Your task to perform on an android device: change the clock display to analog Image 0: 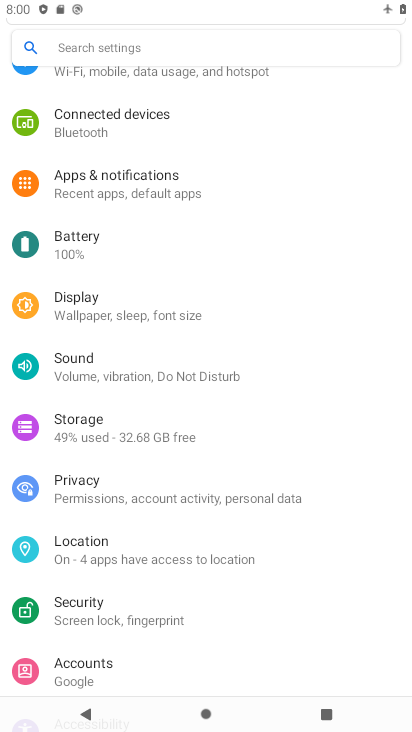
Step 0: press home button
Your task to perform on an android device: change the clock display to analog Image 1: 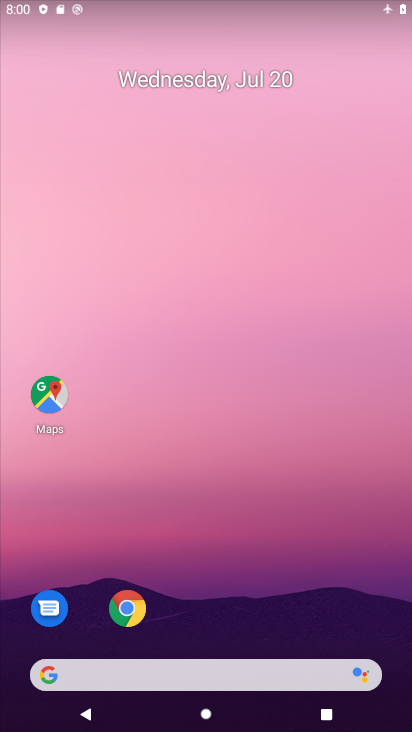
Step 1: drag from (264, 581) to (247, 11)
Your task to perform on an android device: change the clock display to analog Image 2: 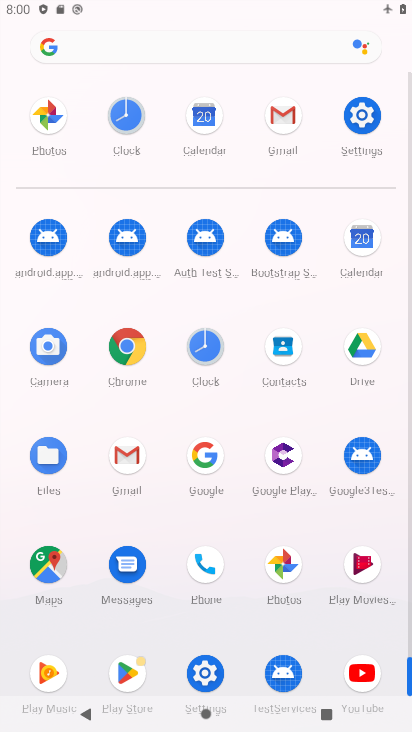
Step 2: click (203, 355)
Your task to perform on an android device: change the clock display to analog Image 3: 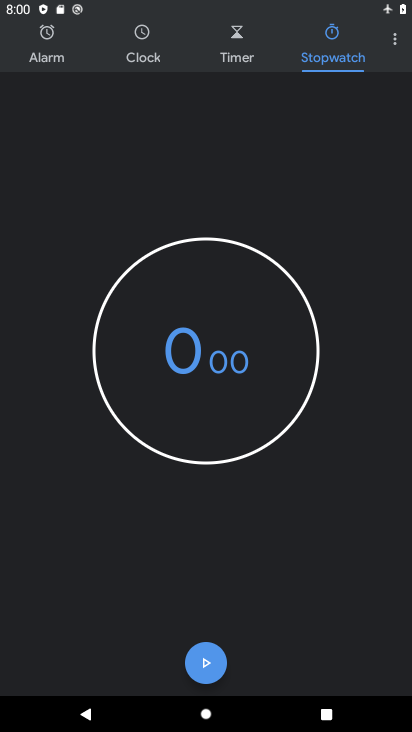
Step 3: click (394, 47)
Your task to perform on an android device: change the clock display to analog Image 4: 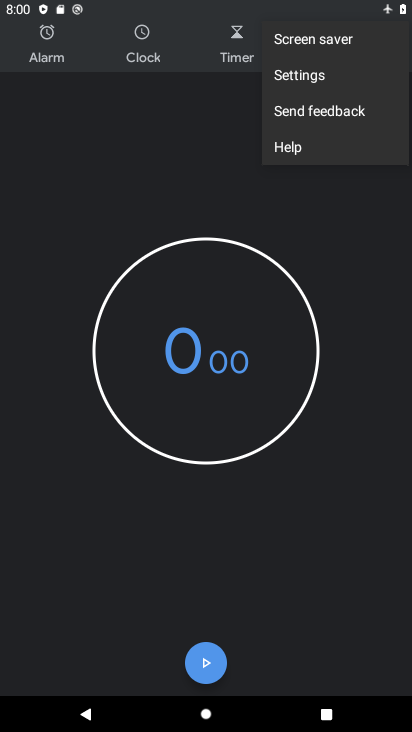
Step 4: click (318, 78)
Your task to perform on an android device: change the clock display to analog Image 5: 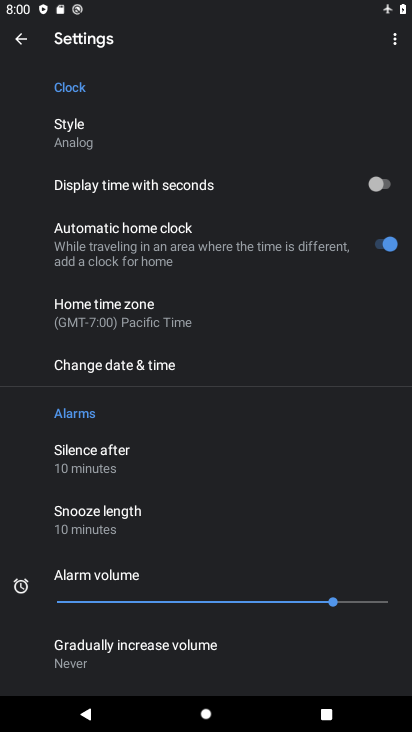
Step 5: task complete